Your task to perform on an android device: Search for Italian restaurants on Maps Image 0: 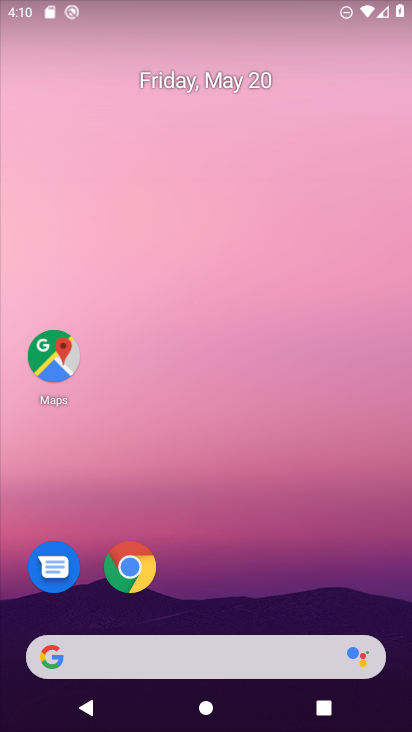
Step 0: drag from (233, 716) to (243, 241)
Your task to perform on an android device: Search for Italian restaurants on Maps Image 1: 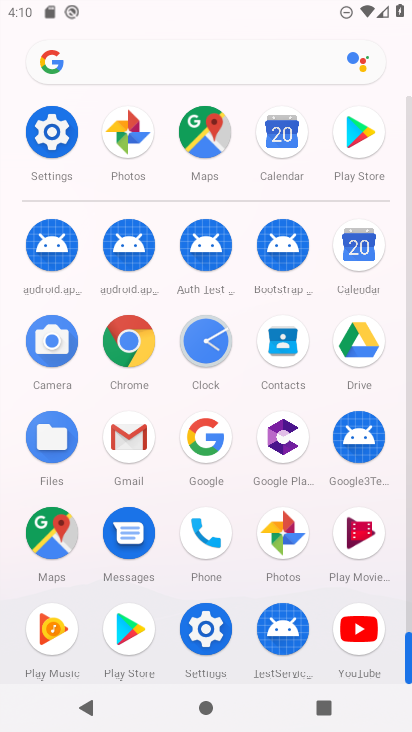
Step 1: click (54, 532)
Your task to perform on an android device: Search for Italian restaurants on Maps Image 2: 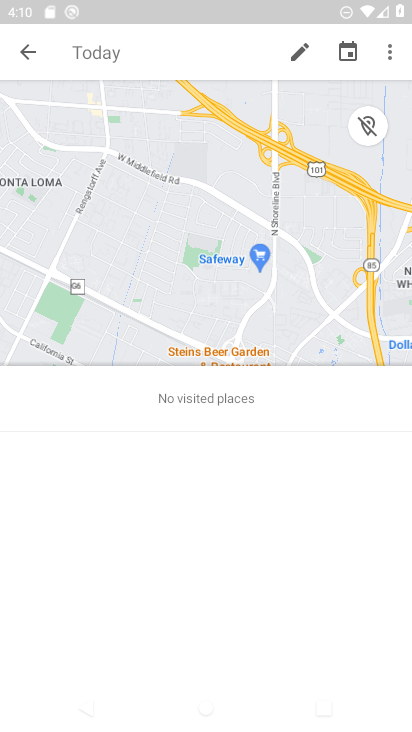
Step 2: click (30, 51)
Your task to perform on an android device: Search for Italian restaurants on Maps Image 3: 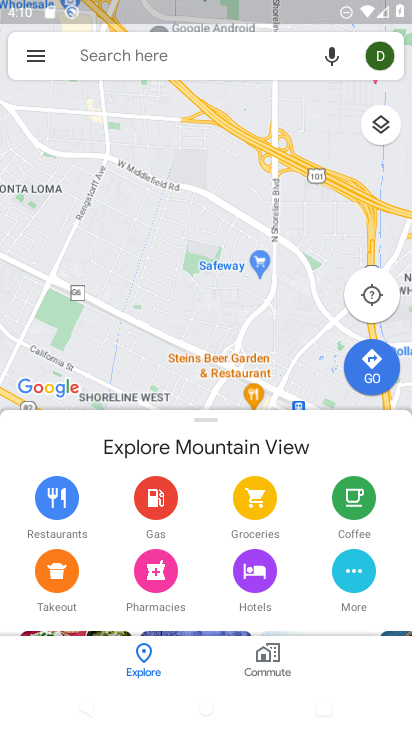
Step 3: click (169, 65)
Your task to perform on an android device: Search for Italian restaurants on Maps Image 4: 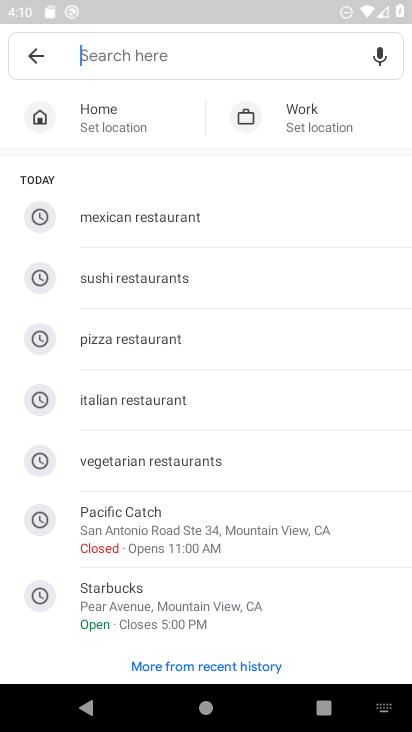
Step 4: type "italian restaurants"
Your task to perform on an android device: Search for Italian restaurants on Maps Image 5: 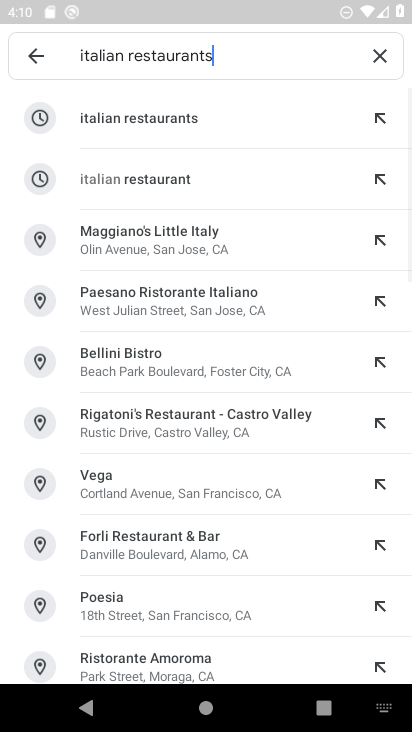
Step 5: click (131, 119)
Your task to perform on an android device: Search for Italian restaurants on Maps Image 6: 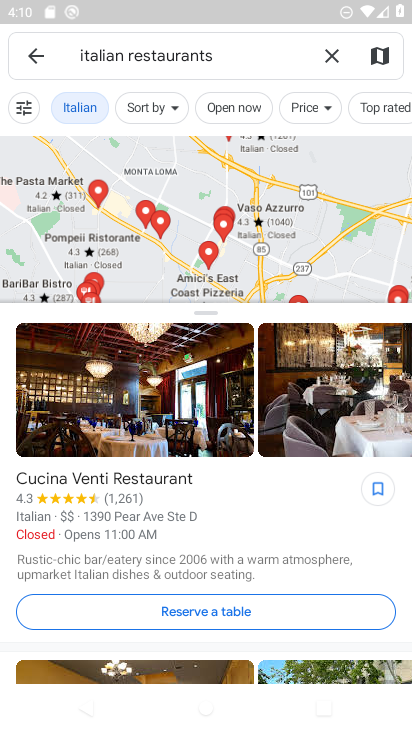
Step 6: task complete